Your task to perform on an android device: Open Chrome and go to settings Image 0: 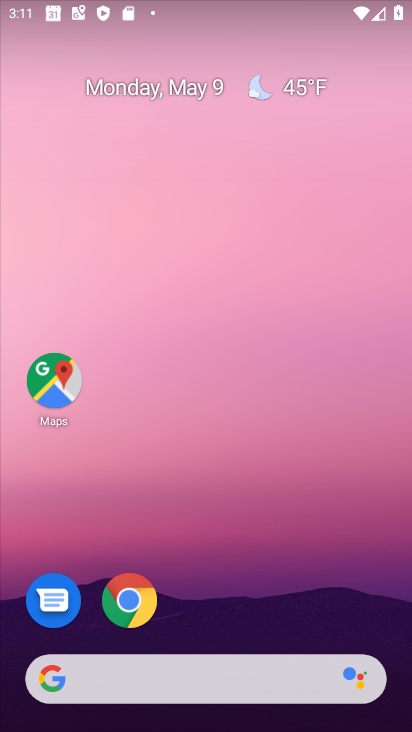
Step 0: drag from (286, 428) to (278, 16)
Your task to perform on an android device: Open Chrome and go to settings Image 1: 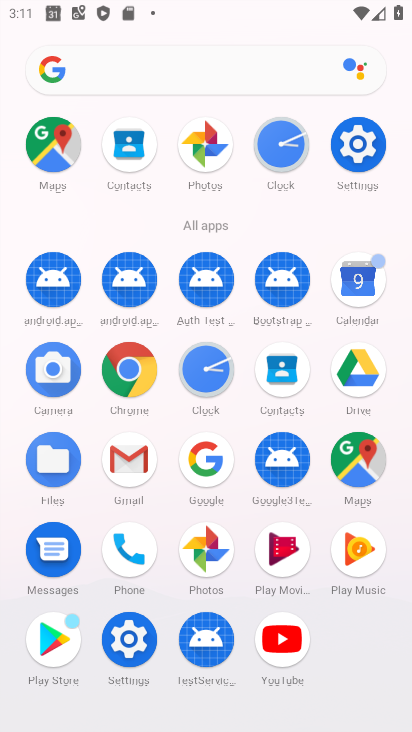
Step 1: click (126, 366)
Your task to perform on an android device: Open Chrome and go to settings Image 2: 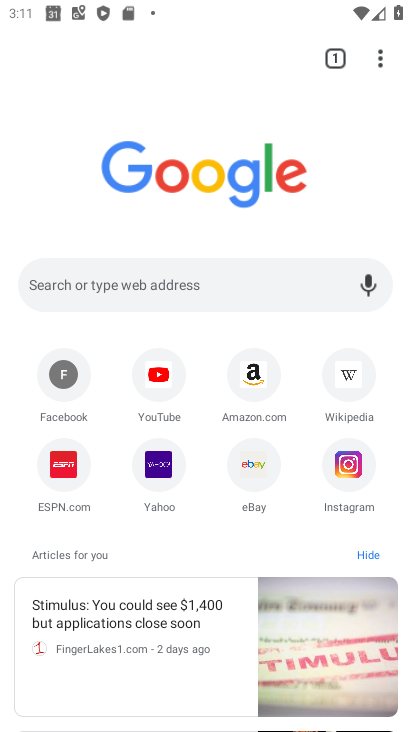
Step 2: task complete